Your task to perform on an android device: turn on wifi Image 0: 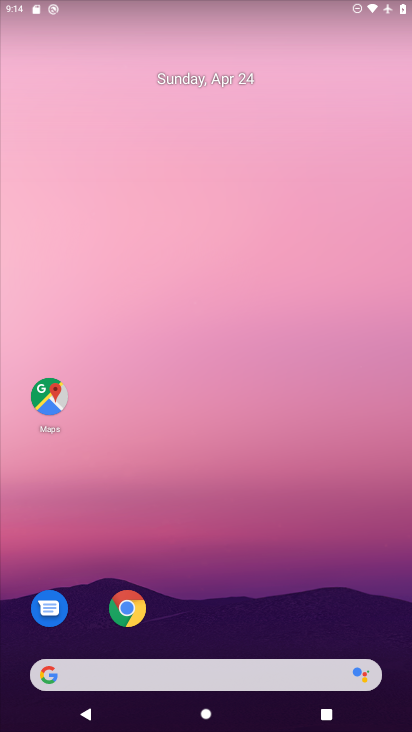
Step 0: drag from (206, 639) to (232, 100)
Your task to perform on an android device: turn on wifi Image 1: 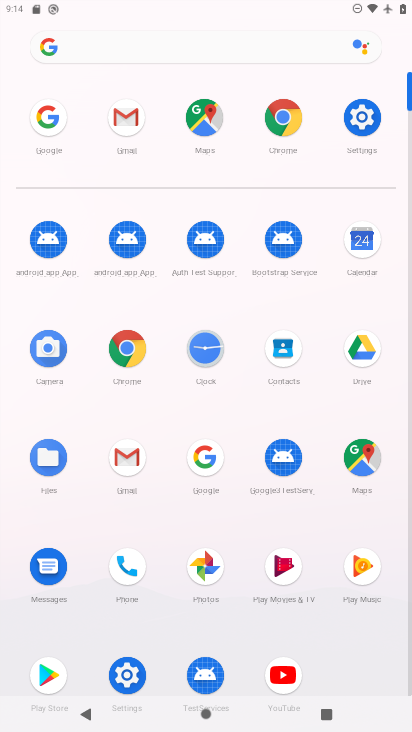
Step 1: click (351, 118)
Your task to perform on an android device: turn on wifi Image 2: 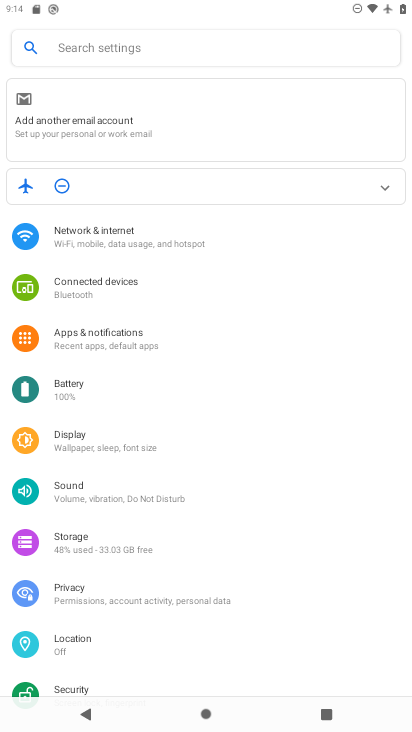
Step 2: click (84, 238)
Your task to perform on an android device: turn on wifi Image 3: 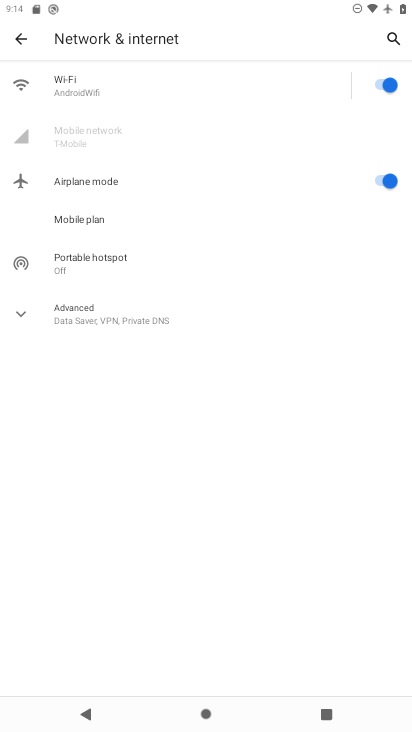
Step 3: task complete